Your task to perform on an android device: toggle translation in the chrome app Image 0: 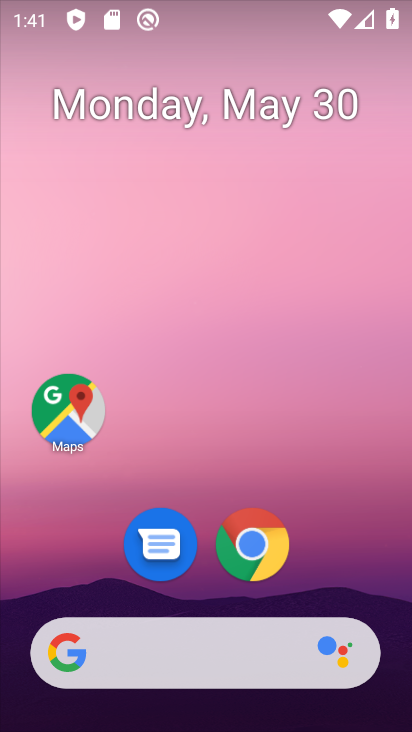
Step 0: click (232, 548)
Your task to perform on an android device: toggle translation in the chrome app Image 1: 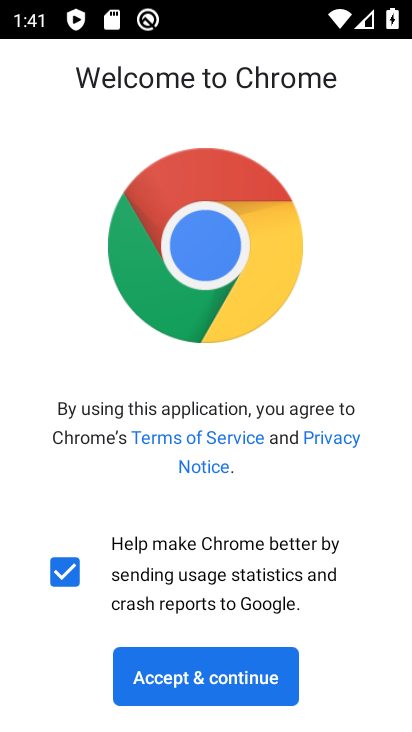
Step 1: click (251, 673)
Your task to perform on an android device: toggle translation in the chrome app Image 2: 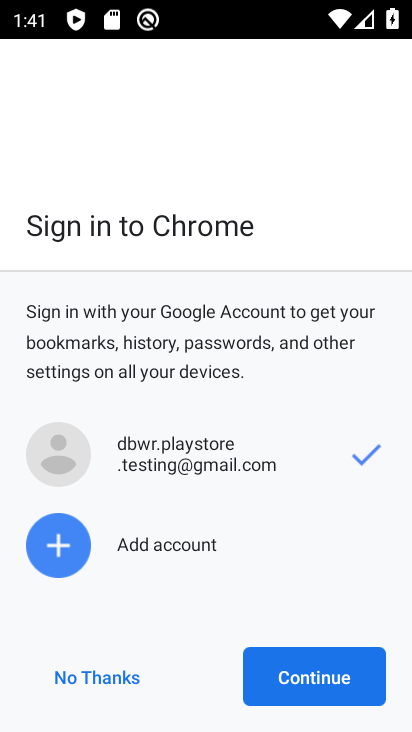
Step 2: click (328, 684)
Your task to perform on an android device: toggle translation in the chrome app Image 3: 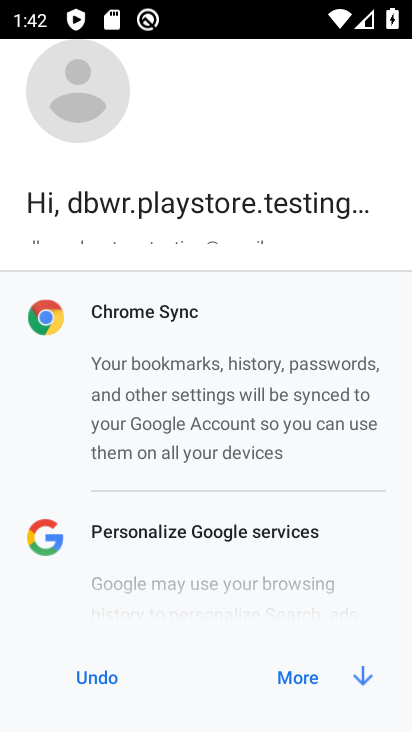
Step 3: click (299, 675)
Your task to perform on an android device: toggle translation in the chrome app Image 4: 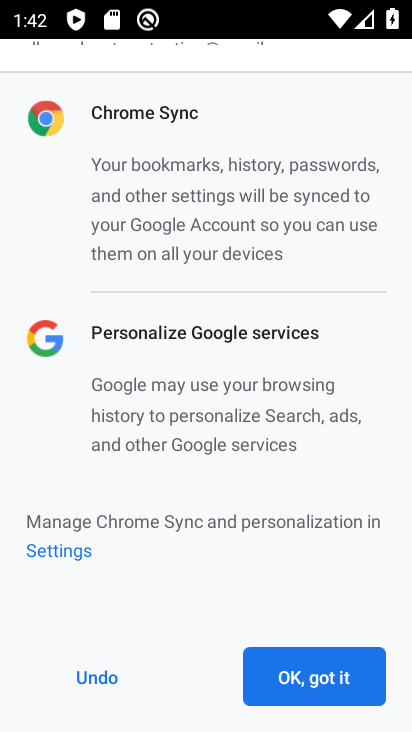
Step 4: click (299, 675)
Your task to perform on an android device: toggle translation in the chrome app Image 5: 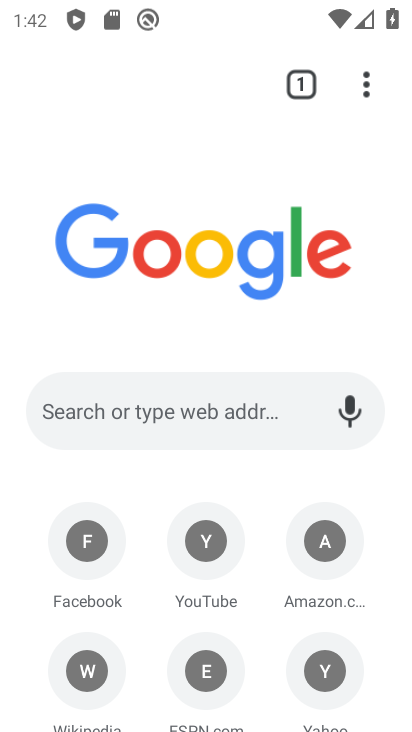
Step 5: click (364, 91)
Your task to perform on an android device: toggle translation in the chrome app Image 6: 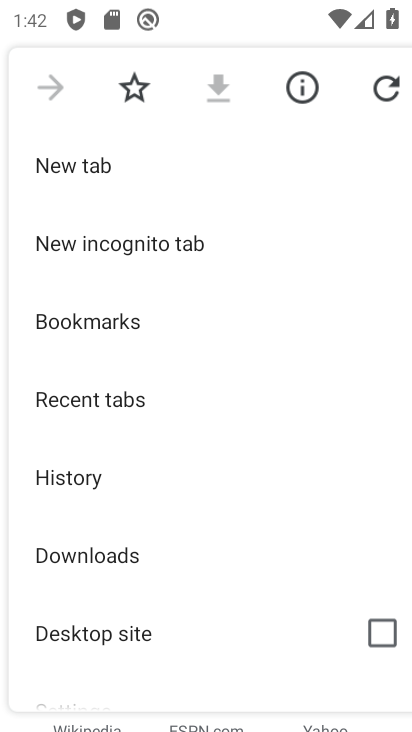
Step 6: drag from (146, 613) to (182, 198)
Your task to perform on an android device: toggle translation in the chrome app Image 7: 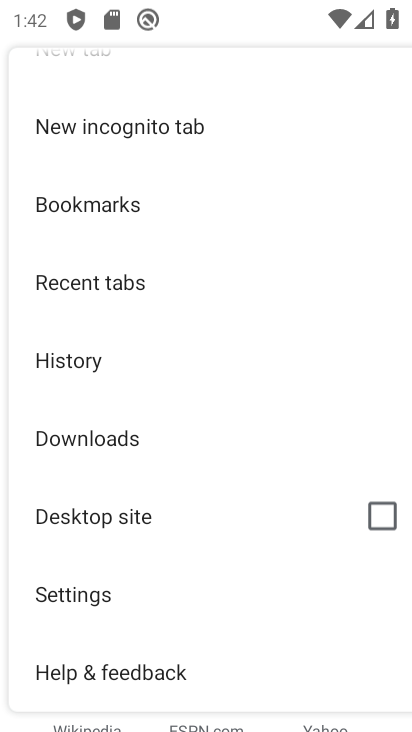
Step 7: click (80, 611)
Your task to perform on an android device: toggle translation in the chrome app Image 8: 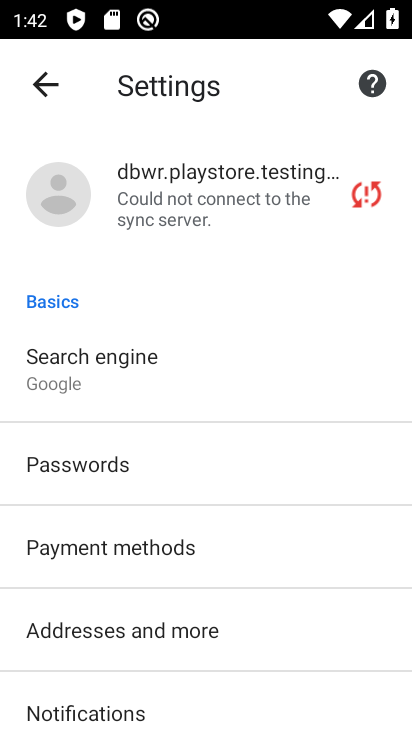
Step 8: drag from (105, 664) to (169, 190)
Your task to perform on an android device: toggle translation in the chrome app Image 9: 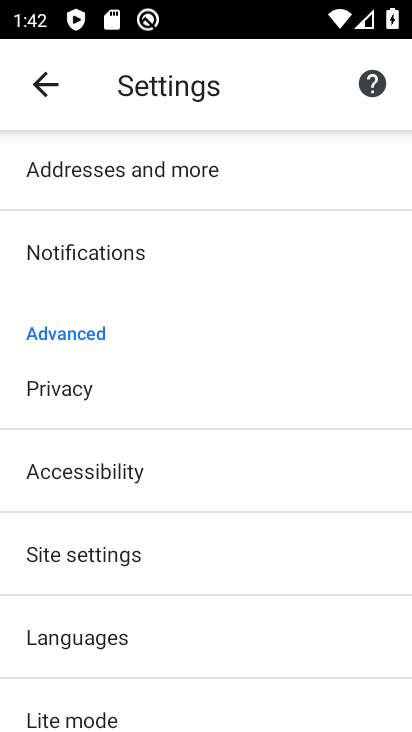
Step 9: click (102, 628)
Your task to perform on an android device: toggle translation in the chrome app Image 10: 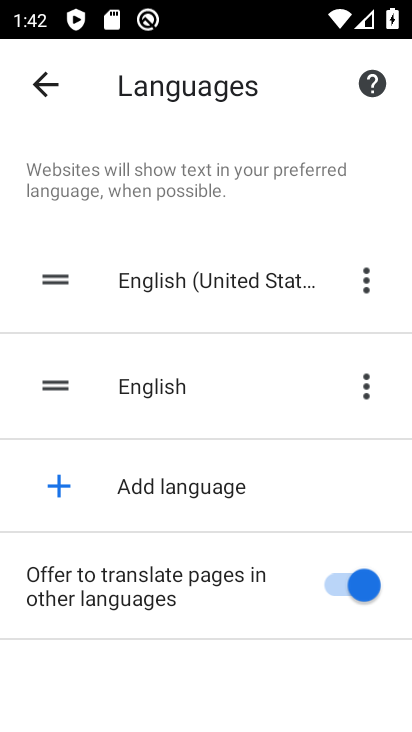
Step 10: click (332, 589)
Your task to perform on an android device: toggle translation in the chrome app Image 11: 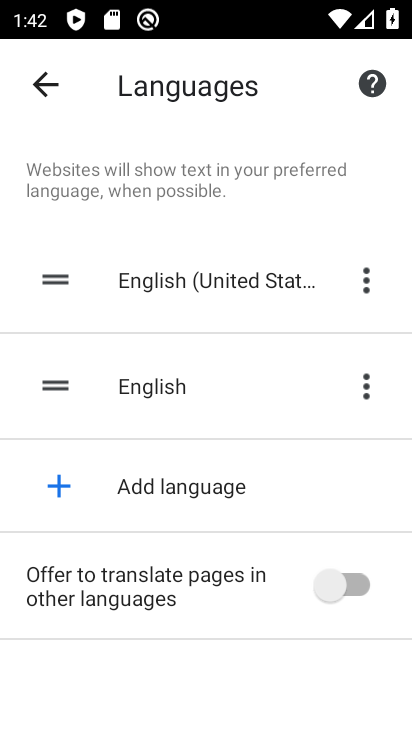
Step 11: task complete